Your task to perform on an android device: set default search engine in the chrome app Image 0: 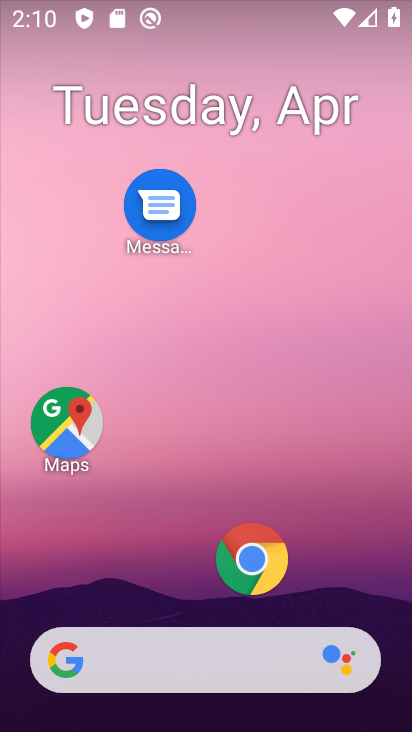
Step 0: drag from (146, 564) to (163, 521)
Your task to perform on an android device: set default search engine in the chrome app Image 1: 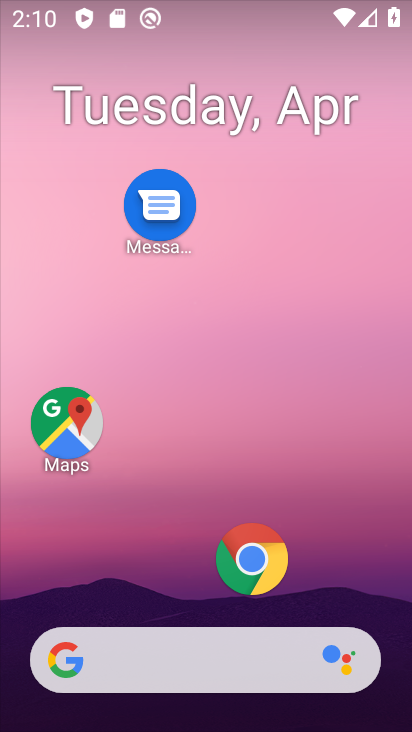
Step 1: click (254, 558)
Your task to perform on an android device: set default search engine in the chrome app Image 2: 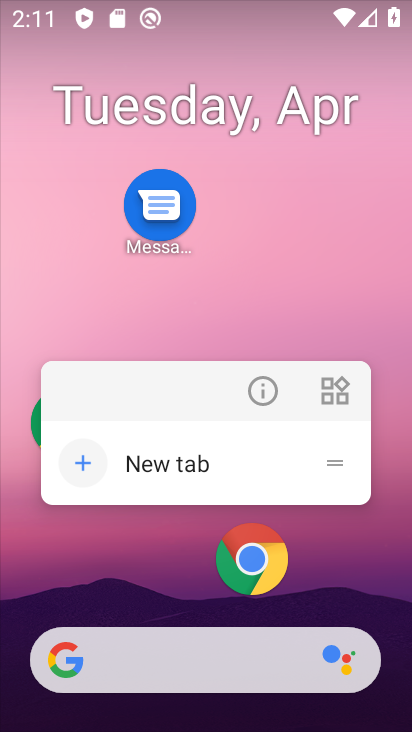
Step 2: click (235, 570)
Your task to perform on an android device: set default search engine in the chrome app Image 3: 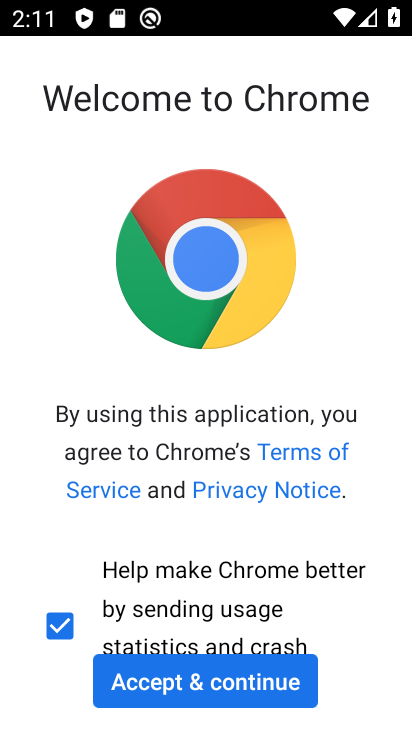
Step 3: click (235, 702)
Your task to perform on an android device: set default search engine in the chrome app Image 4: 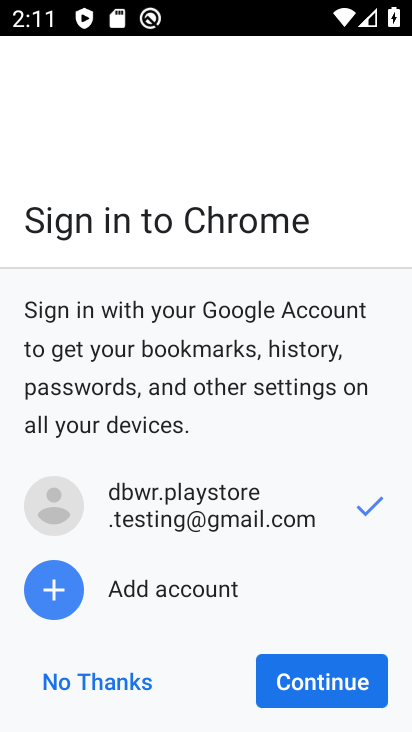
Step 4: click (261, 686)
Your task to perform on an android device: set default search engine in the chrome app Image 5: 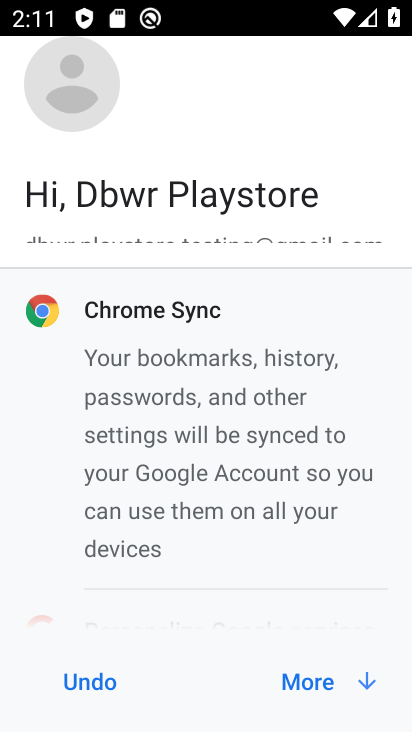
Step 5: click (295, 670)
Your task to perform on an android device: set default search engine in the chrome app Image 6: 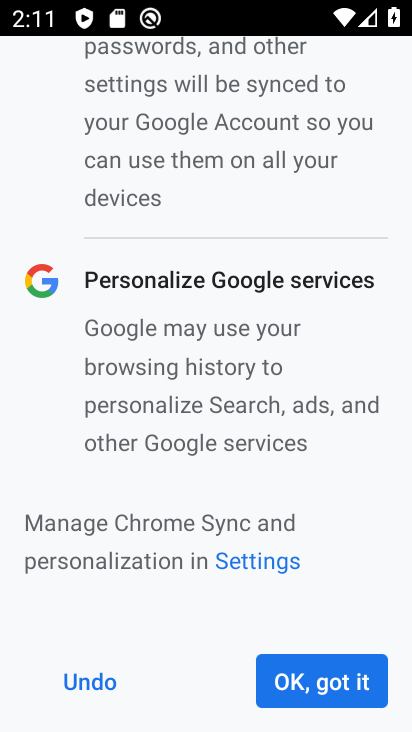
Step 6: click (295, 670)
Your task to perform on an android device: set default search engine in the chrome app Image 7: 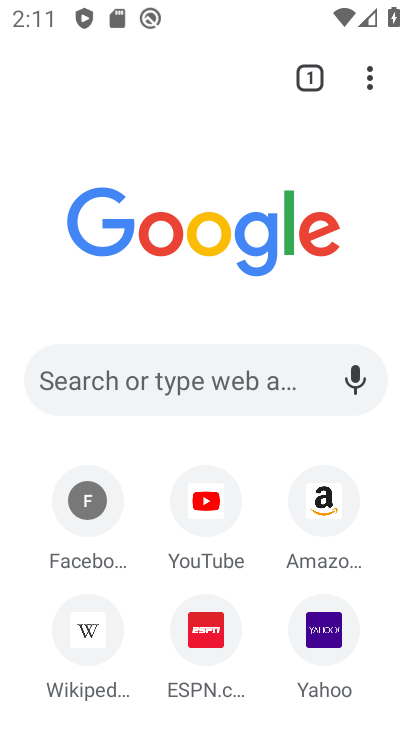
Step 7: click (363, 76)
Your task to perform on an android device: set default search engine in the chrome app Image 8: 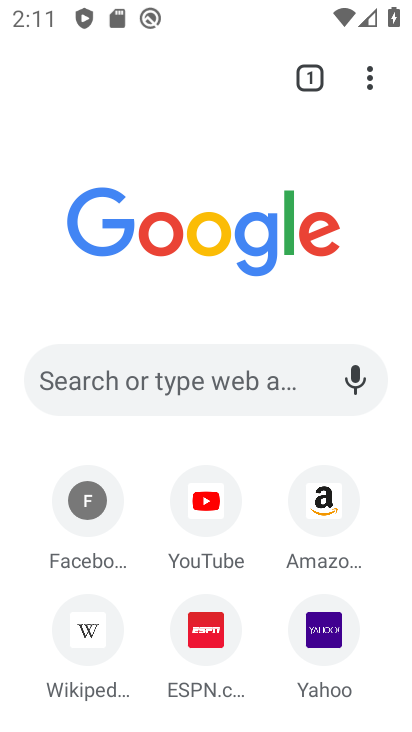
Step 8: click (365, 83)
Your task to perform on an android device: set default search engine in the chrome app Image 9: 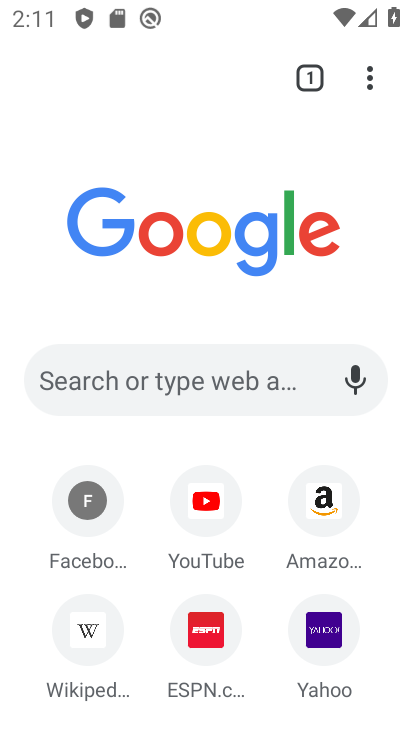
Step 9: click (368, 80)
Your task to perform on an android device: set default search engine in the chrome app Image 10: 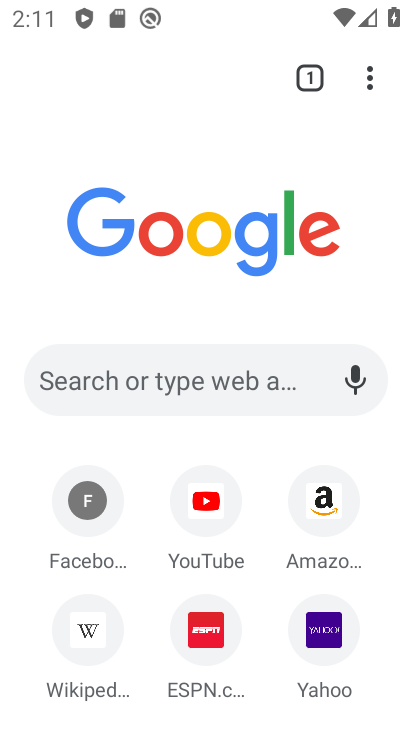
Step 10: drag from (367, 80) to (100, 639)
Your task to perform on an android device: set default search engine in the chrome app Image 11: 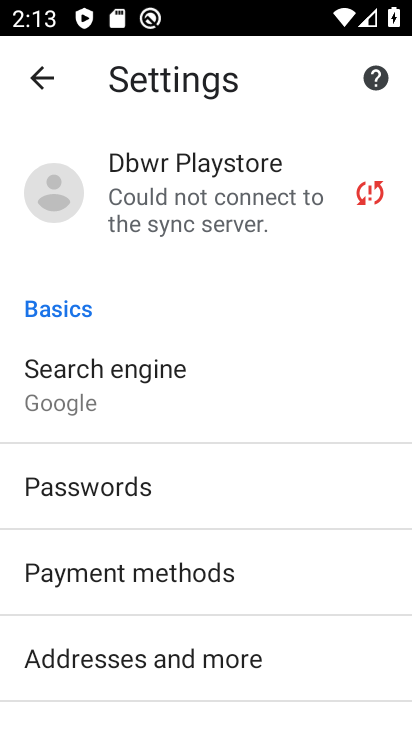
Step 11: click (99, 373)
Your task to perform on an android device: set default search engine in the chrome app Image 12: 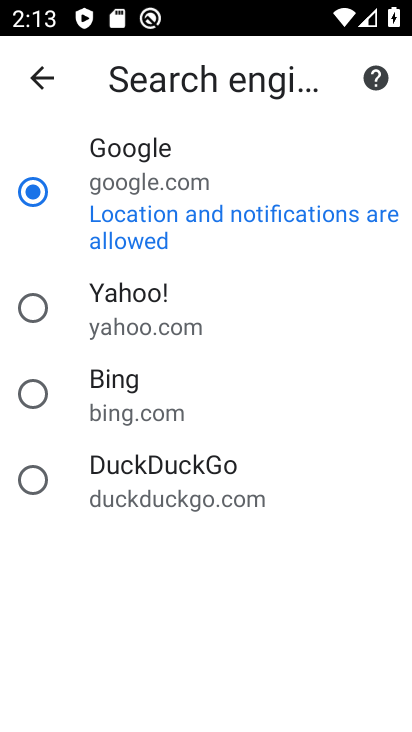
Step 12: click (116, 373)
Your task to perform on an android device: set default search engine in the chrome app Image 13: 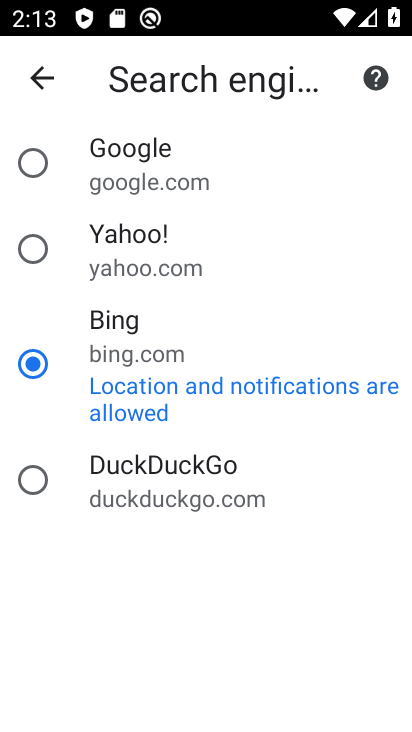
Step 13: task complete